Your task to perform on an android device: Search for macbook on costco.com, select the first entry, and add it to the cart. Image 0: 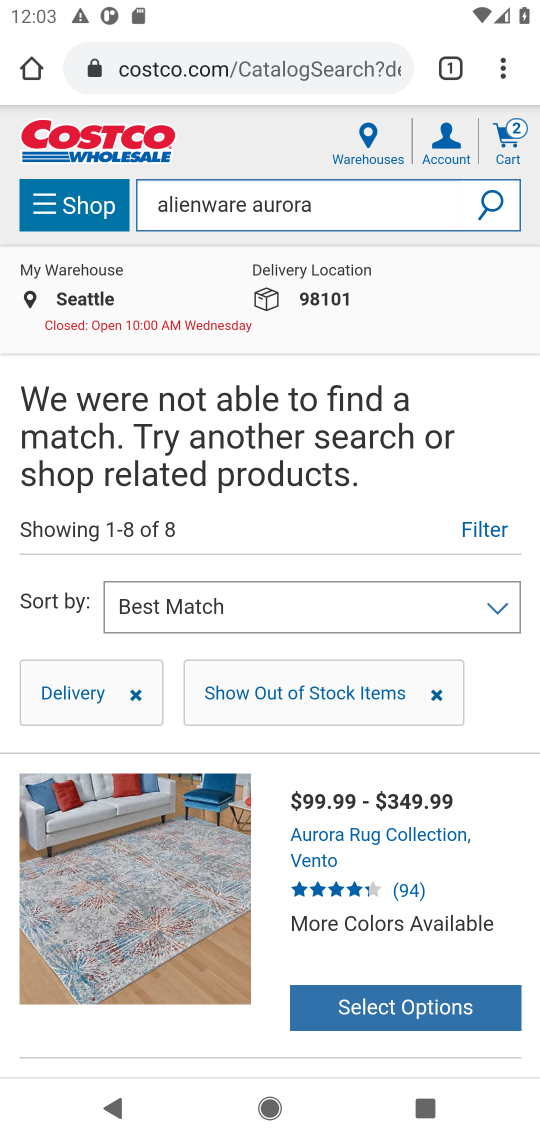
Step 0: click (359, 920)
Your task to perform on an android device: Search for macbook on costco.com, select the first entry, and add it to the cart. Image 1: 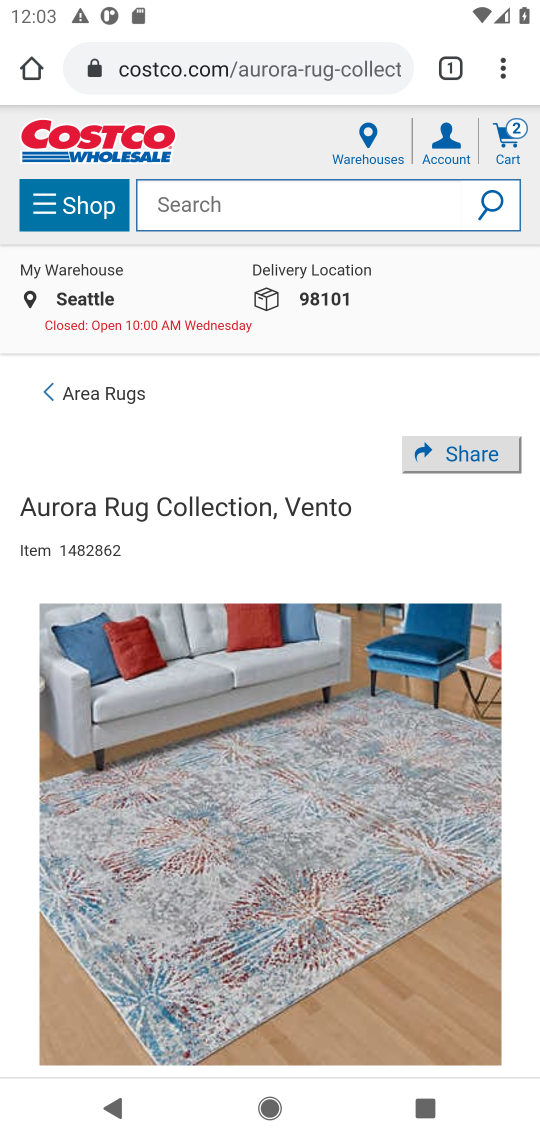
Step 1: click (183, 203)
Your task to perform on an android device: Search for macbook on costco.com, select the first entry, and add it to the cart. Image 2: 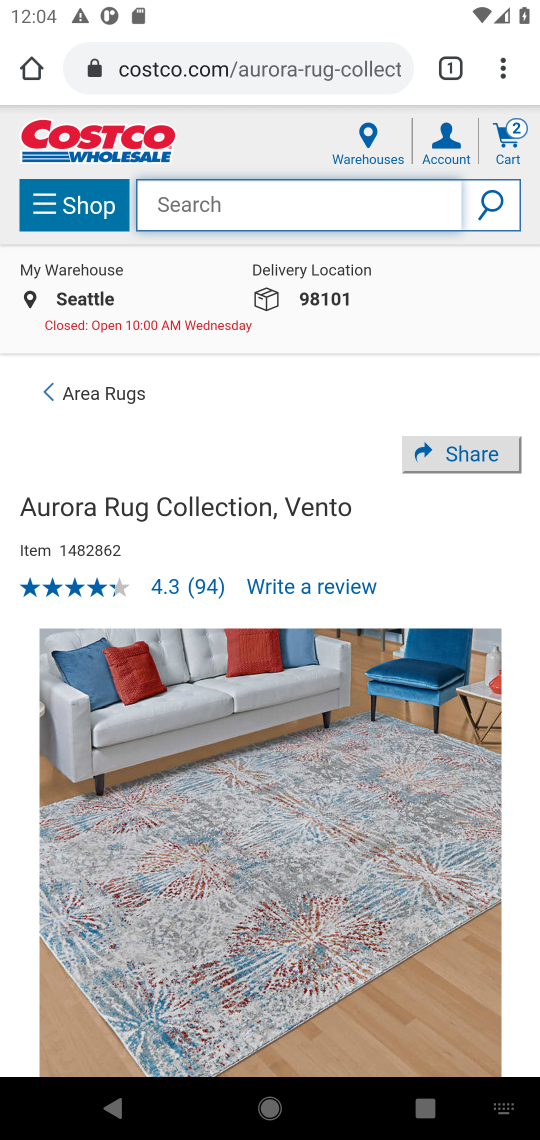
Step 2: type "macbook "
Your task to perform on an android device: Search for macbook on costco.com, select the first entry, and add it to the cart. Image 3: 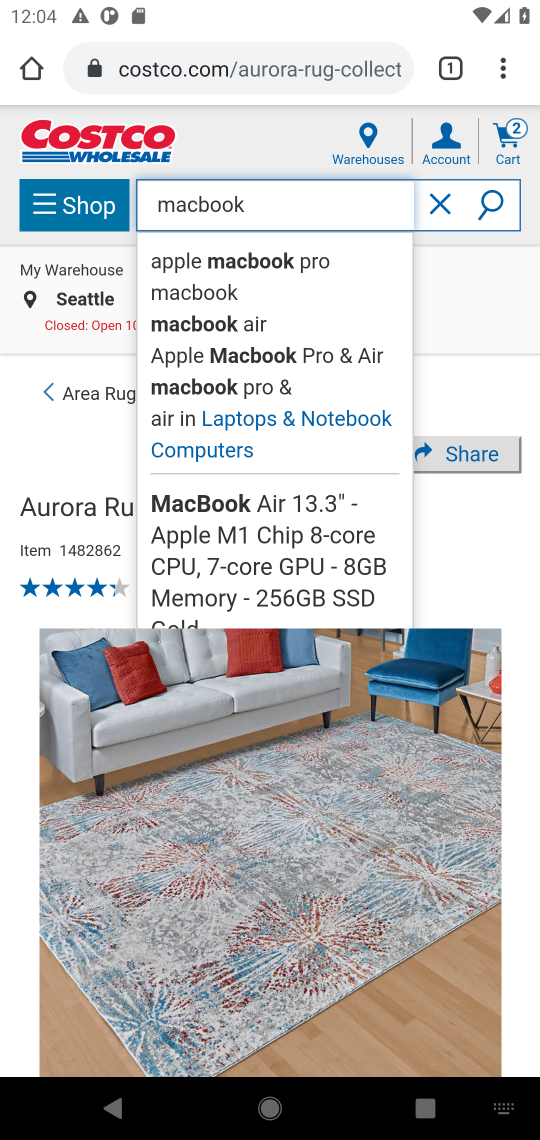
Step 3: click (478, 210)
Your task to perform on an android device: Search for macbook on costco.com, select the first entry, and add it to the cart. Image 4: 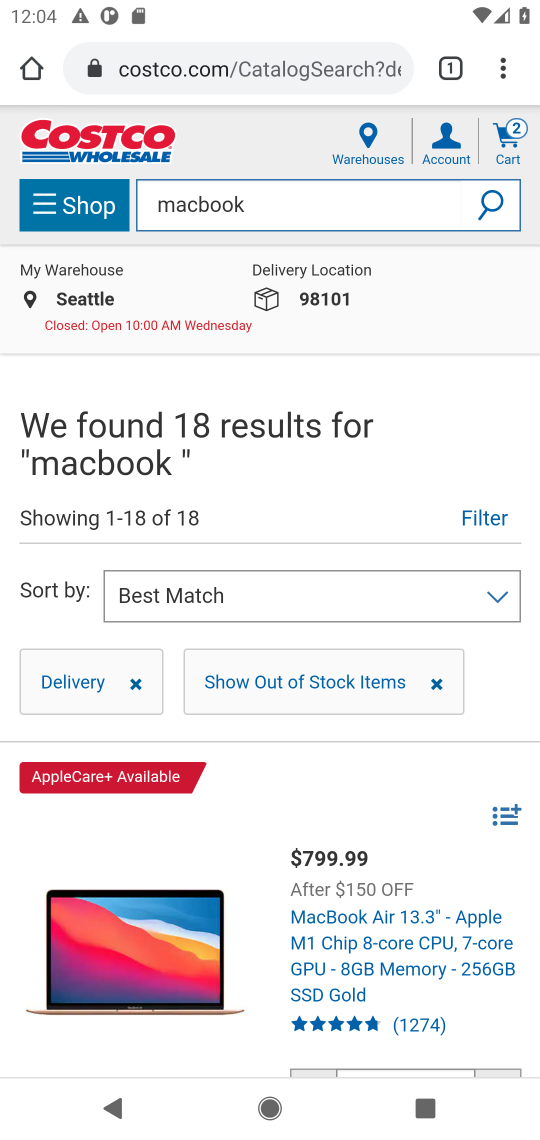
Step 4: click (269, 930)
Your task to perform on an android device: Search for macbook on costco.com, select the first entry, and add it to the cart. Image 5: 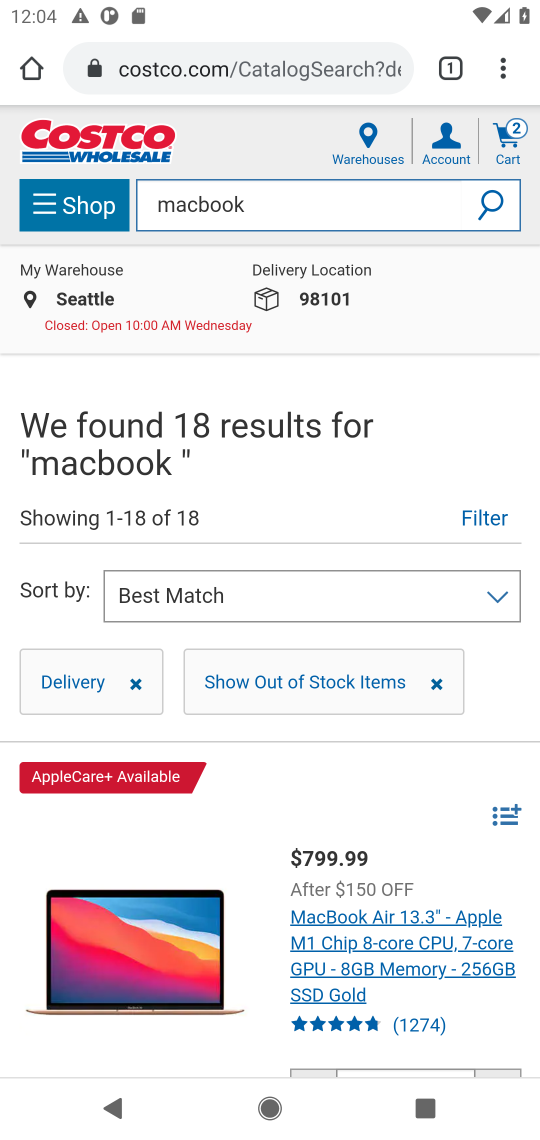
Step 5: drag from (273, 995) to (299, 386)
Your task to perform on an android device: Search for macbook on costco.com, select the first entry, and add it to the cart. Image 6: 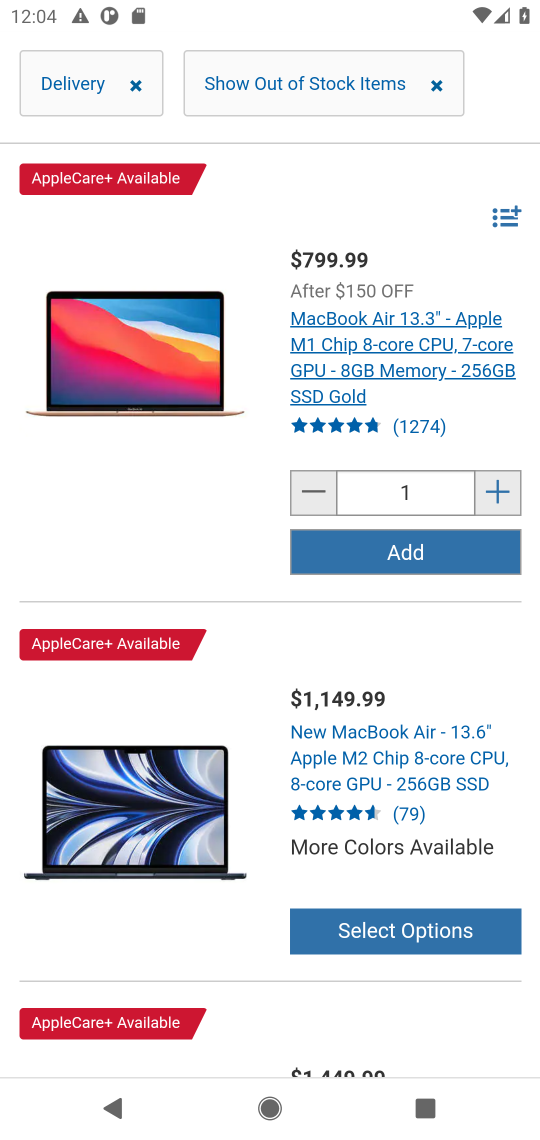
Step 6: click (451, 550)
Your task to perform on an android device: Search for macbook on costco.com, select the first entry, and add it to the cart. Image 7: 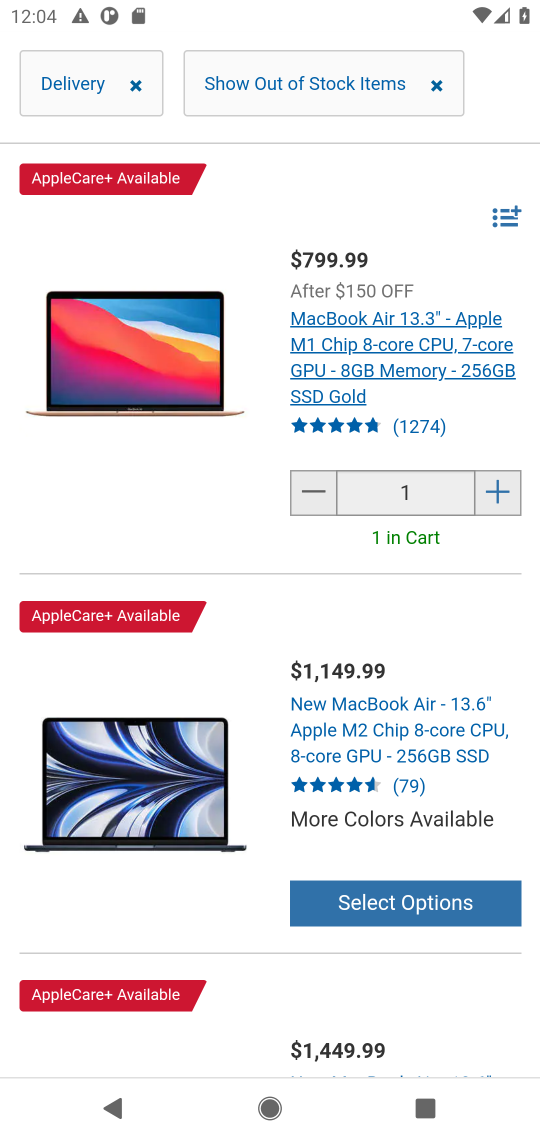
Step 7: task complete